Your task to perform on an android device: Check the news Image 0: 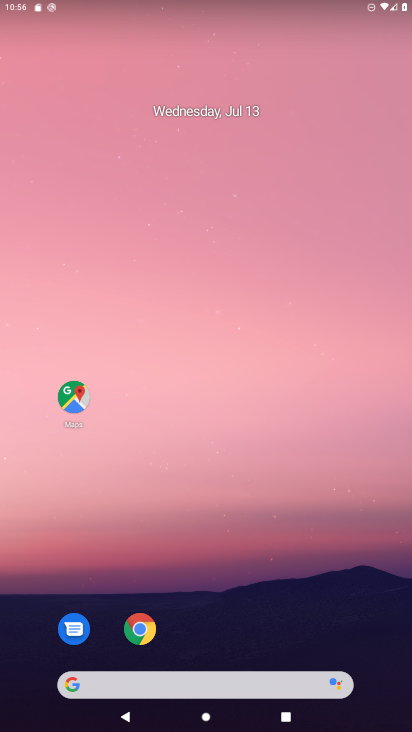
Step 0: drag from (88, 254) to (360, 293)
Your task to perform on an android device: Check the news Image 1: 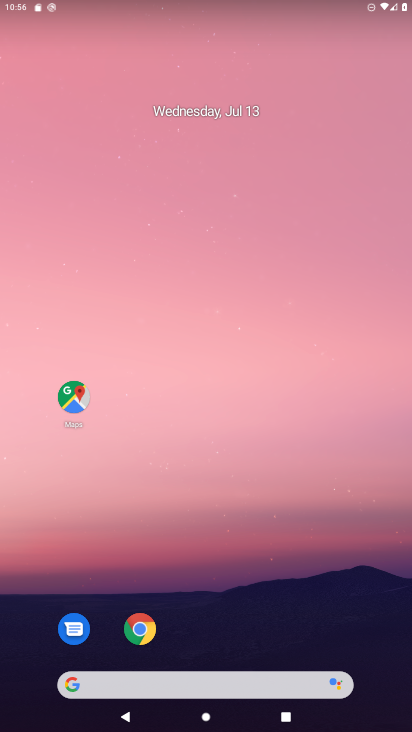
Step 1: task complete